Your task to perform on an android device: empty trash in the gmail app Image 0: 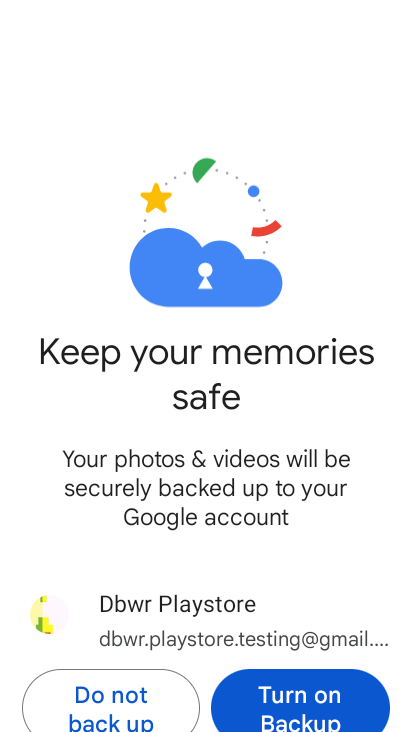
Step 0: press home button
Your task to perform on an android device: empty trash in the gmail app Image 1: 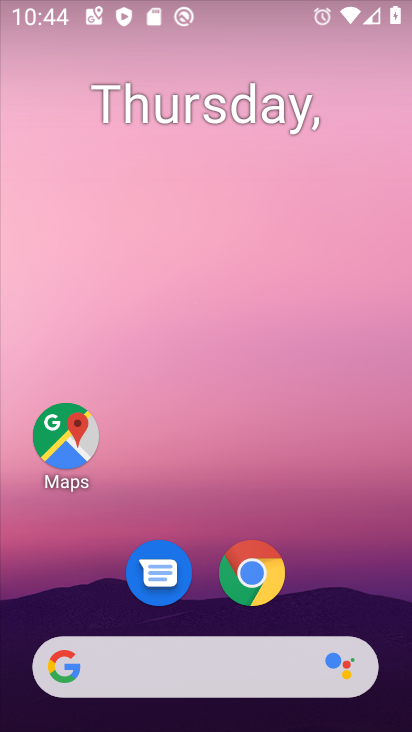
Step 1: drag from (308, 524) to (230, 59)
Your task to perform on an android device: empty trash in the gmail app Image 2: 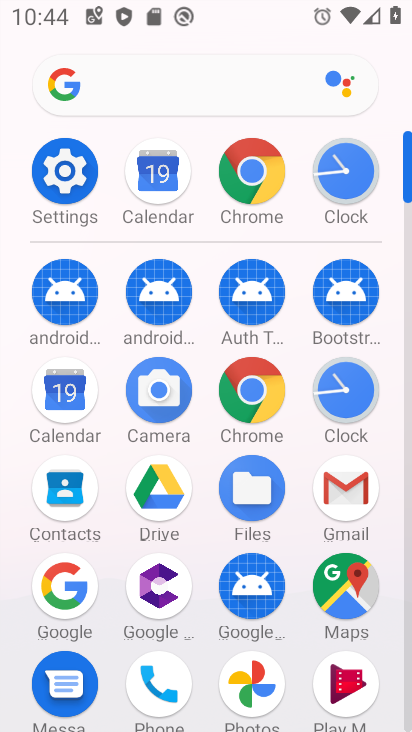
Step 2: click (346, 481)
Your task to perform on an android device: empty trash in the gmail app Image 3: 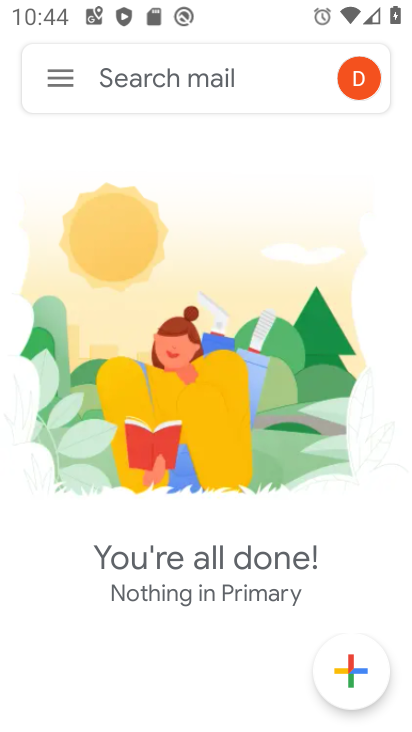
Step 3: click (60, 78)
Your task to perform on an android device: empty trash in the gmail app Image 4: 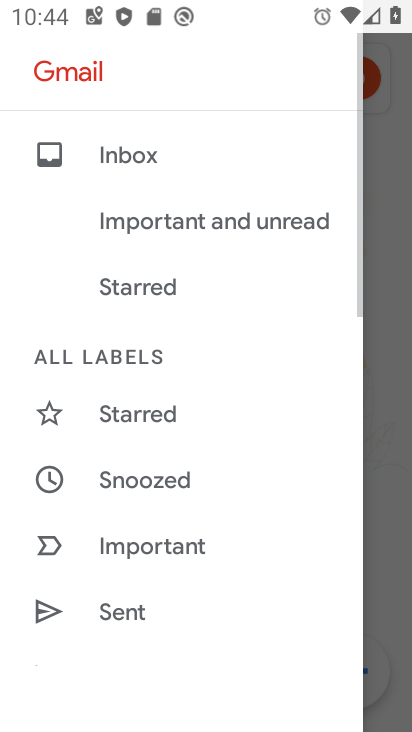
Step 4: drag from (159, 554) to (222, 167)
Your task to perform on an android device: empty trash in the gmail app Image 5: 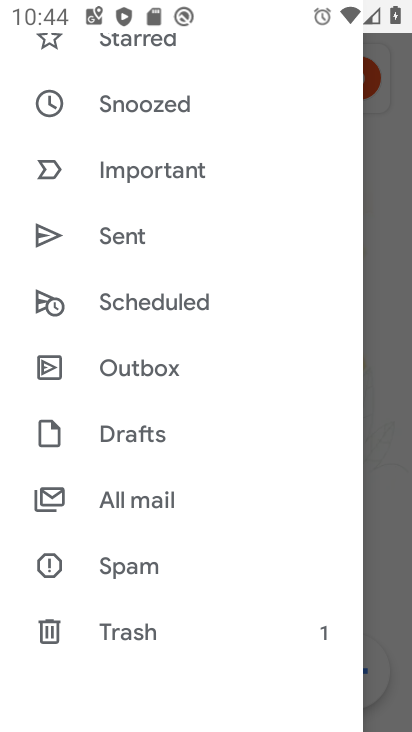
Step 5: drag from (134, 565) to (185, 283)
Your task to perform on an android device: empty trash in the gmail app Image 6: 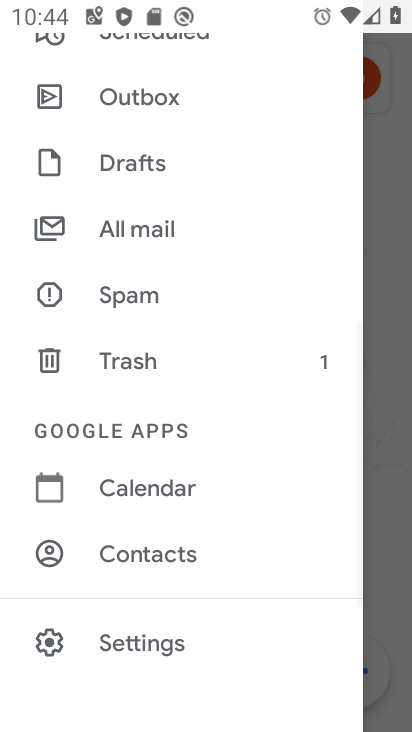
Step 6: click (133, 375)
Your task to perform on an android device: empty trash in the gmail app Image 7: 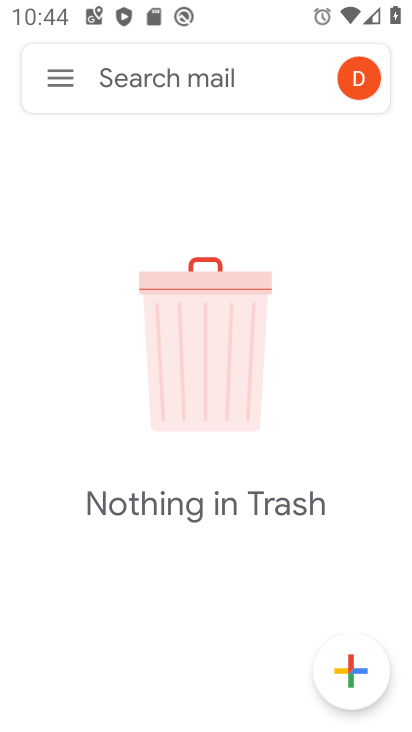
Step 7: task complete